Your task to perform on an android device: Open calendar and show me the second week of next month Image 0: 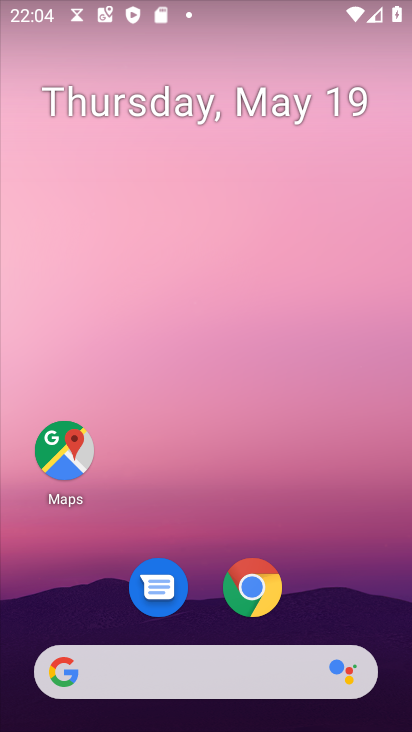
Step 0: click (210, 648)
Your task to perform on an android device: Open calendar and show me the second week of next month Image 1: 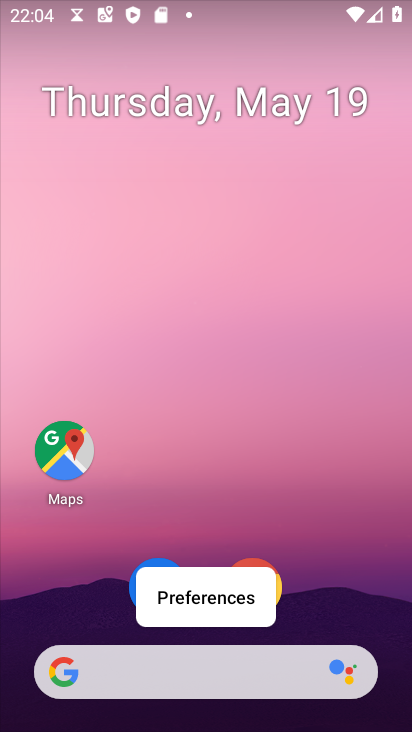
Step 1: drag from (196, 684) to (171, 183)
Your task to perform on an android device: Open calendar and show me the second week of next month Image 2: 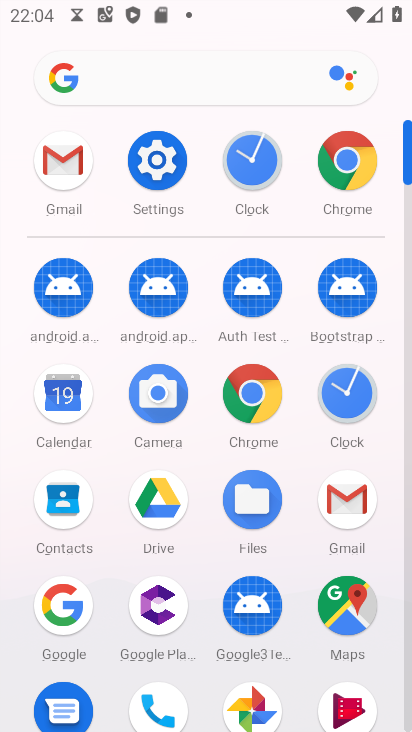
Step 2: click (69, 418)
Your task to perform on an android device: Open calendar and show me the second week of next month Image 3: 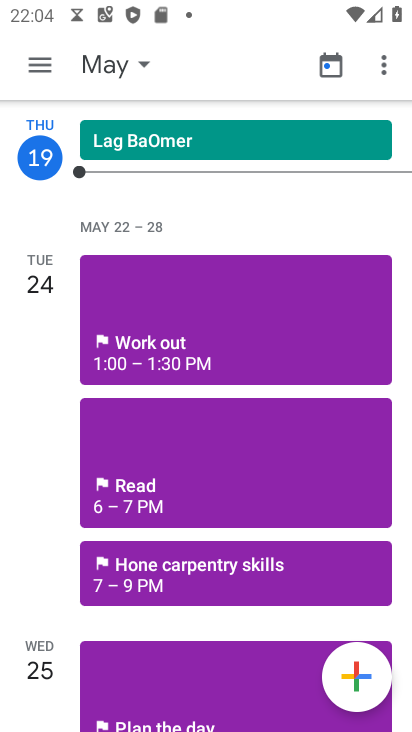
Step 3: click (52, 65)
Your task to perform on an android device: Open calendar and show me the second week of next month Image 4: 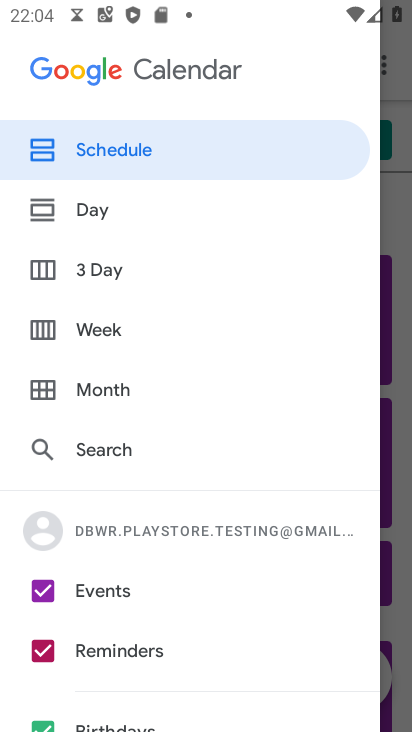
Step 4: click (109, 384)
Your task to perform on an android device: Open calendar and show me the second week of next month Image 5: 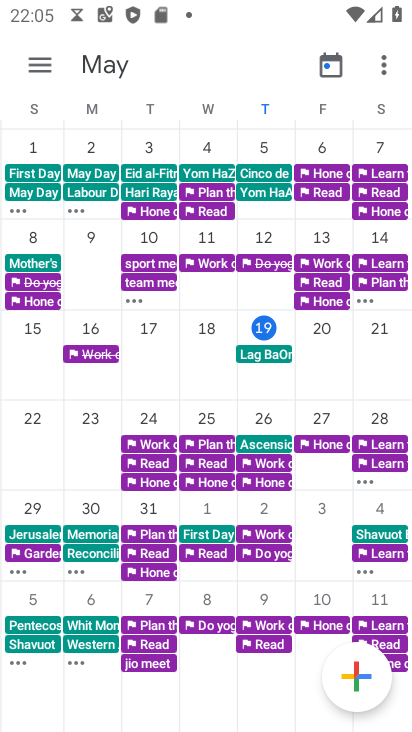
Step 5: task complete